Your task to perform on an android device: Play the last video I watched on Youtube Image 0: 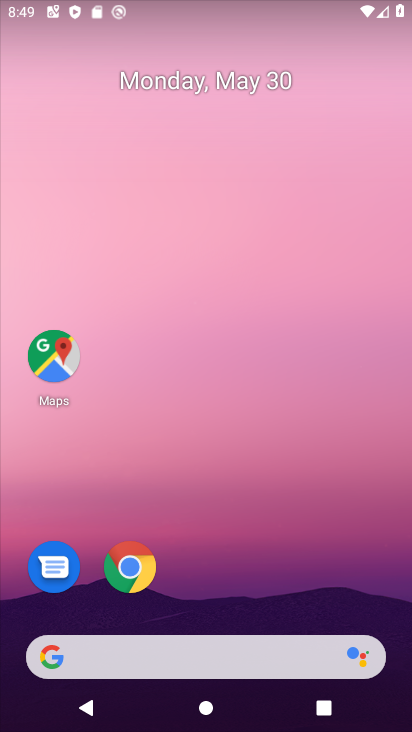
Step 0: drag from (249, 610) to (244, 127)
Your task to perform on an android device: Play the last video I watched on Youtube Image 1: 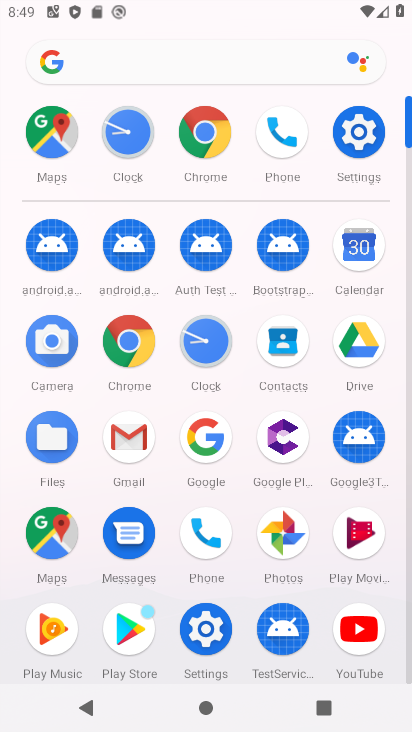
Step 1: click (362, 641)
Your task to perform on an android device: Play the last video I watched on Youtube Image 2: 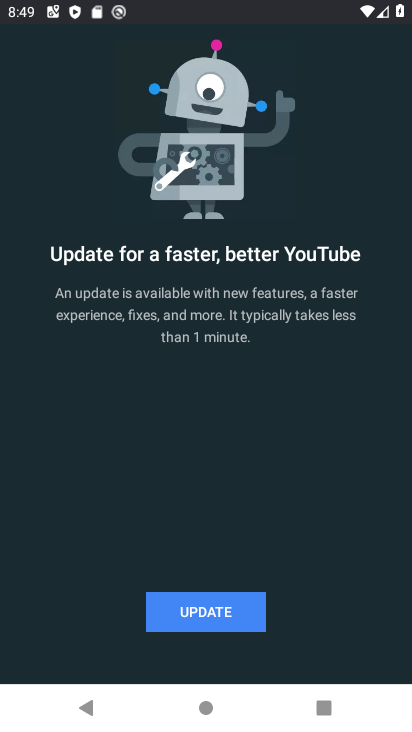
Step 2: click (245, 615)
Your task to perform on an android device: Play the last video I watched on Youtube Image 3: 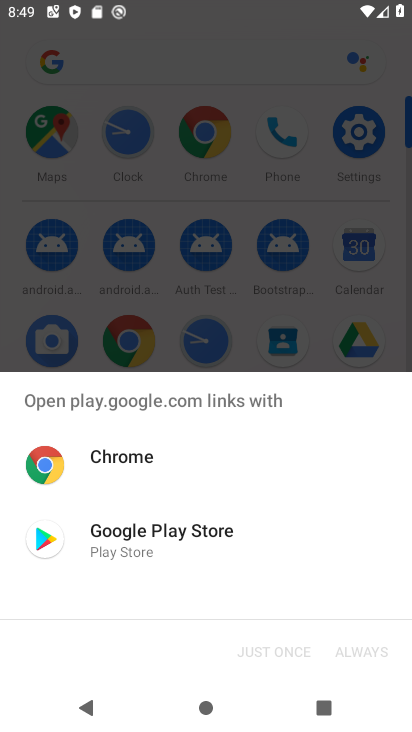
Step 3: click (265, 546)
Your task to perform on an android device: Play the last video I watched on Youtube Image 4: 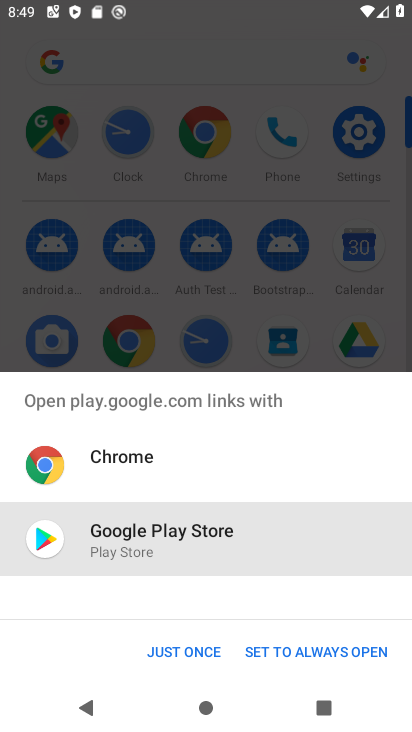
Step 4: click (206, 650)
Your task to perform on an android device: Play the last video I watched on Youtube Image 5: 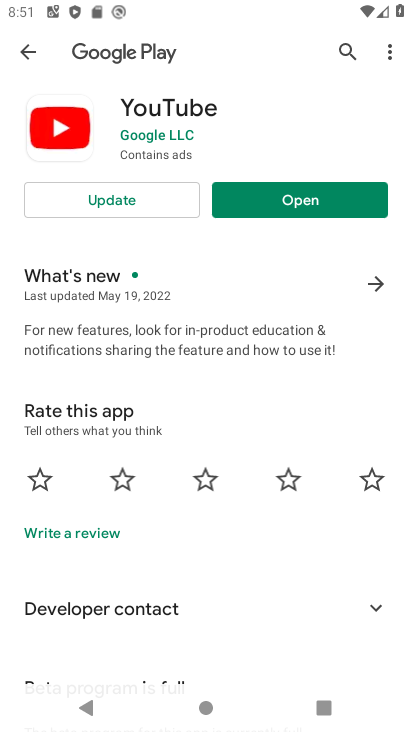
Step 5: click (138, 199)
Your task to perform on an android device: Play the last video I watched on Youtube Image 6: 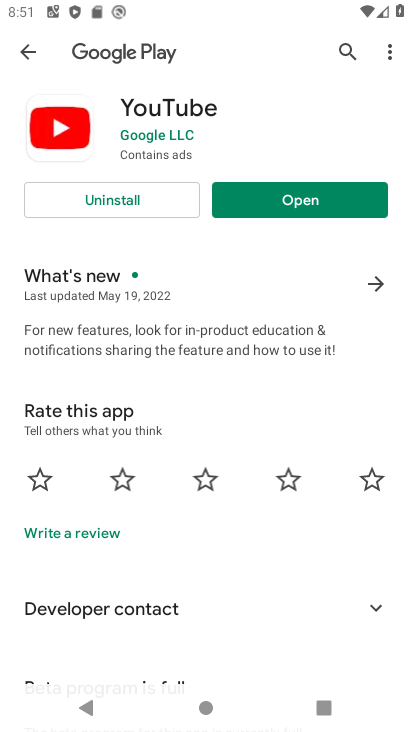
Step 6: click (303, 214)
Your task to perform on an android device: Play the last video I watched on Youtube Image 7: 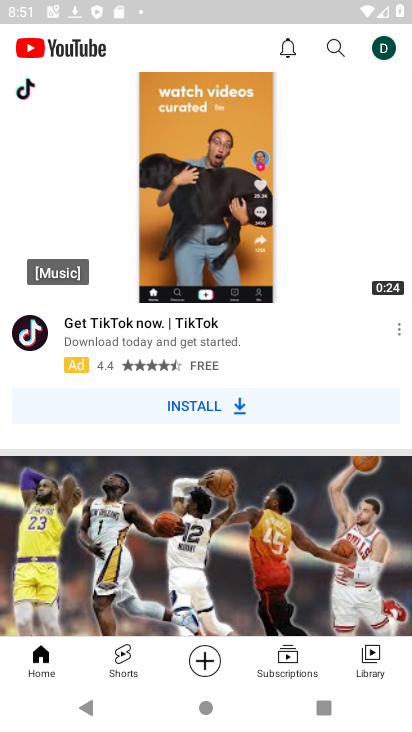
Step 7: click (375, 671)
Your task to perform on an android device: Play the last video I watched on Youtube Image 8: 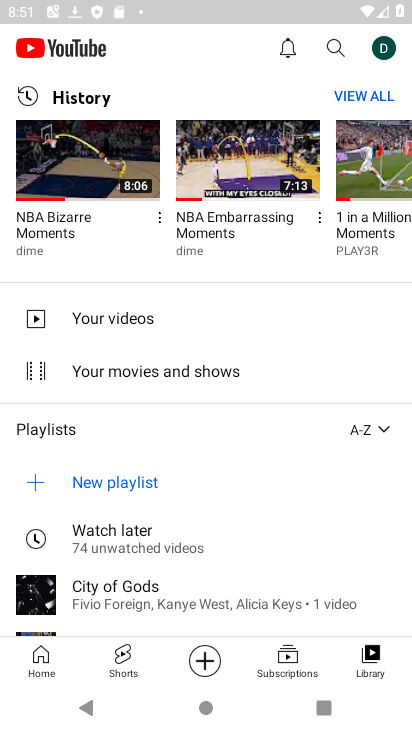
Step 8: click (83, 185)
Your task to perform on an android device: Play the last video I watched on Youtube Image 9: 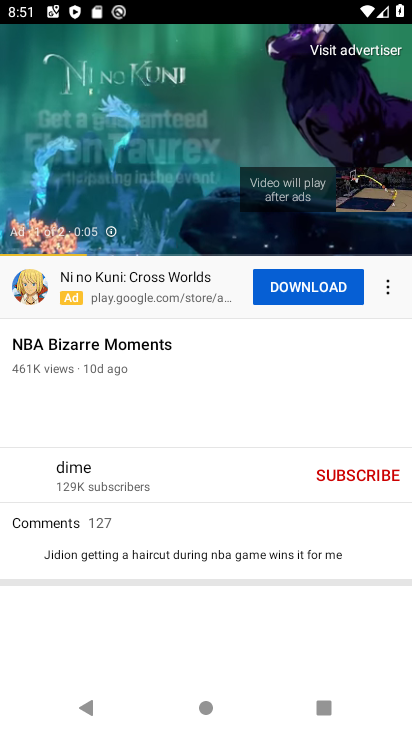
Step 9: task complete